Your task to perform on an android device: turn on javascript in the chrome app Image 0: 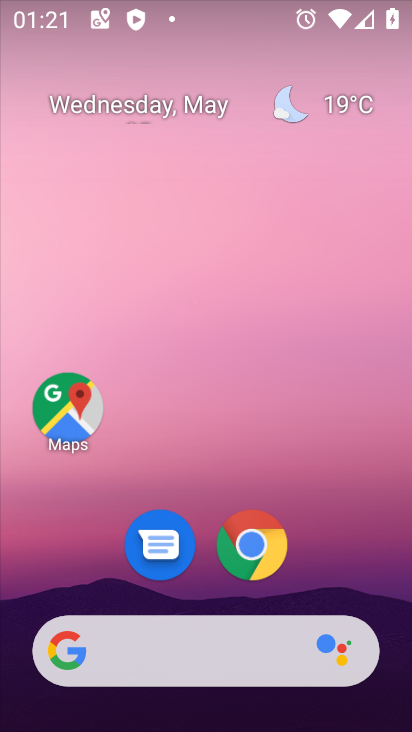
Step 0: drag from (346, 533) to (262, 92)
Your task to perform on an android device: turn on javascript in the chrome app Image 1: 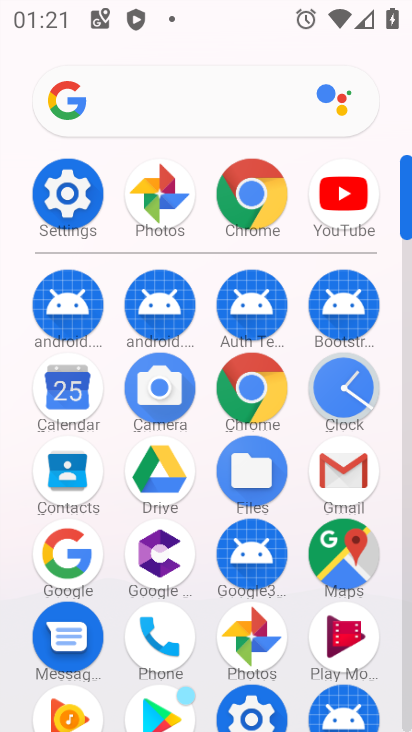
Step 1: click (233, 175)
Your task to perform on an android device: turn on javascript in the chrome app Image 2: 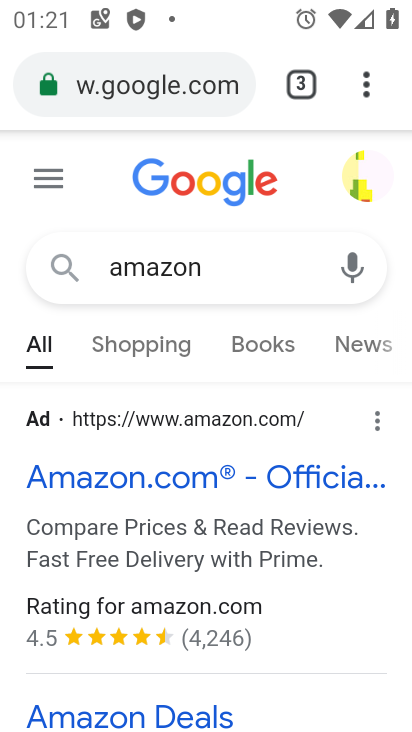
Step 2: click (364, 96)
Your task to perform on an android device: turn on javascript in the chrome app Image 3: 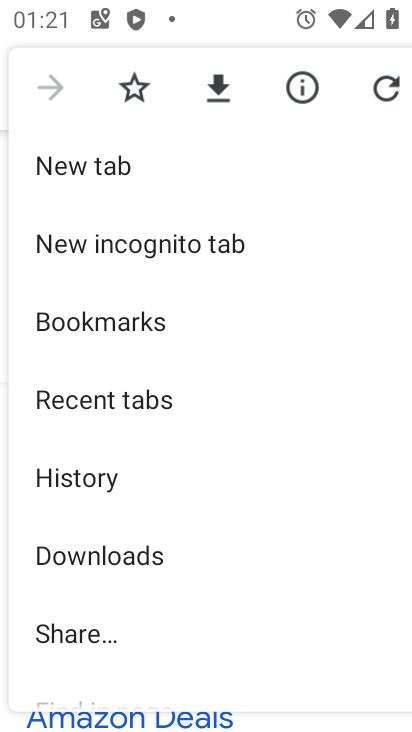
Step 3: drag from (216, 544) to (213, 129)
Your task to perform on an android device: turn on javascript in the chrome app Image 4: 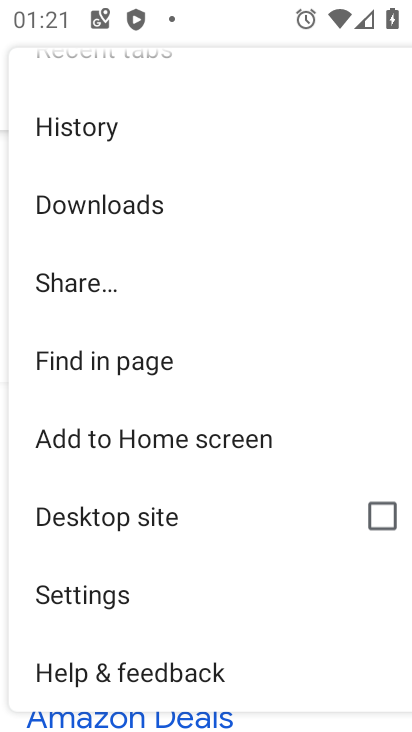
Step 4: click (107, 596)
Your task to perform on an android device: turn on javascript in the chrome app Image 5: 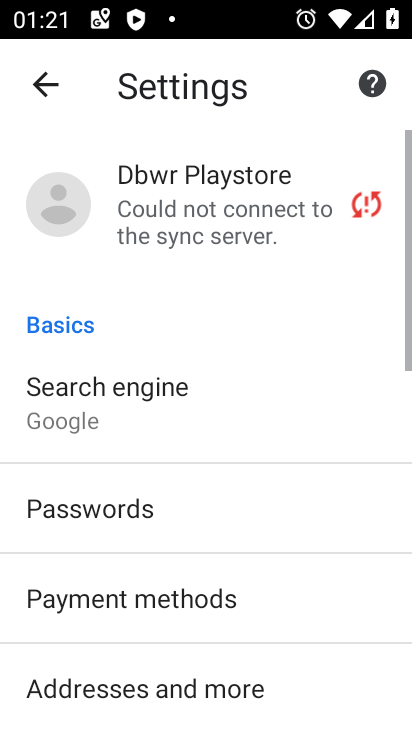
Step 5: drag from (231, 558) to (275, 82)
Your task to perform on an android device: turn on javascript in the chrome app Image 6: 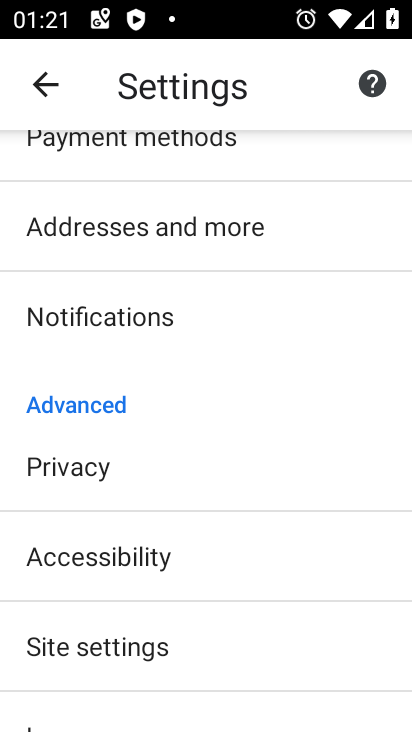
Step 6: drag from (277, 496) to (238, 161)
Your task to perform on an android device: turn on javascript in the chrome app Image 7: 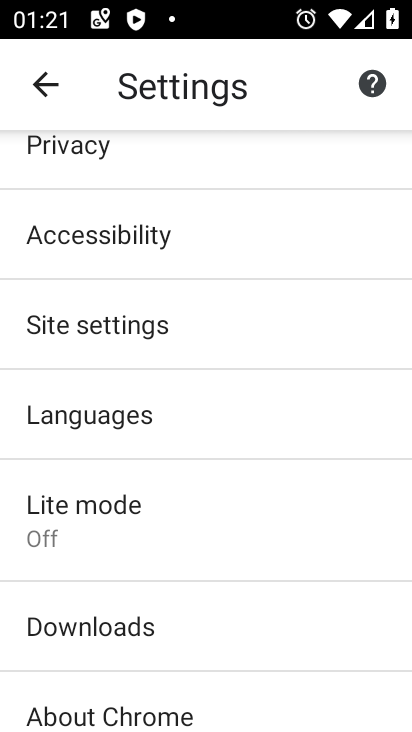
Step 7: drag from (136, 624) to (133, 313)
Your task to perform on an android device: turn on javascript in the chrome app Image 8: 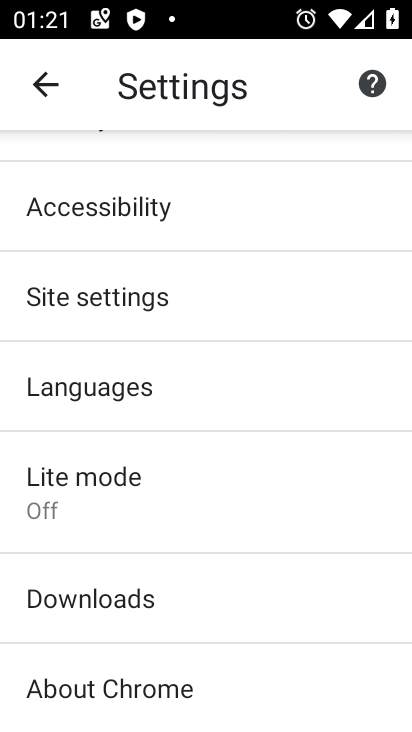
Step 8: click (133, 290)
Your task to perform on an android device: turn on javascript in the chrome app Image 9: 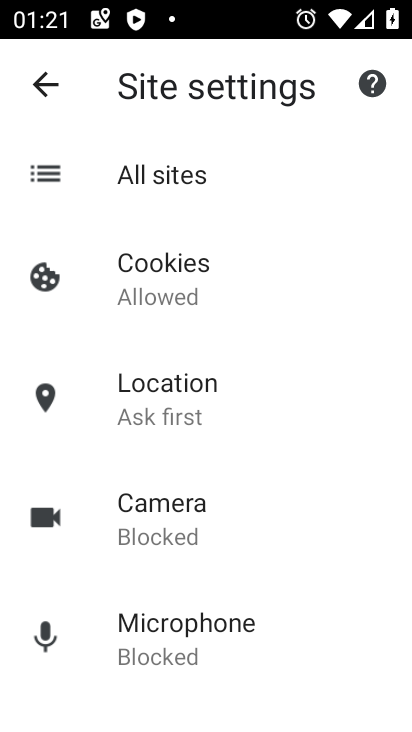
Step 9: drag from (240, 586) to (291, 168)
Your task to perform on an android device: turn on javascript in the chrome app Image 10: 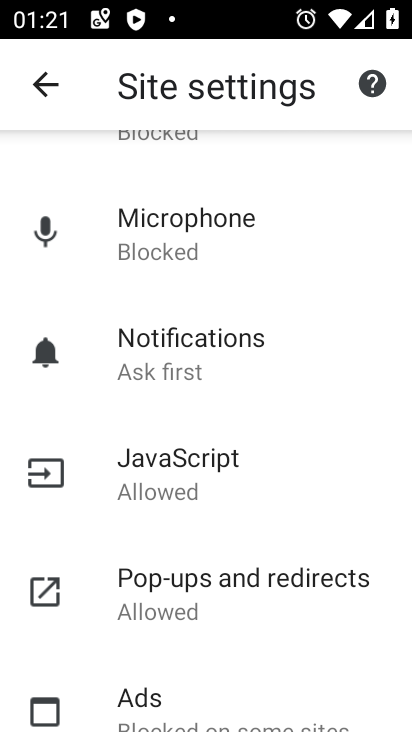
Step 10: click (192, 495)
Your task to perform on an android device: turn on javascript in the chrome app Image 11: 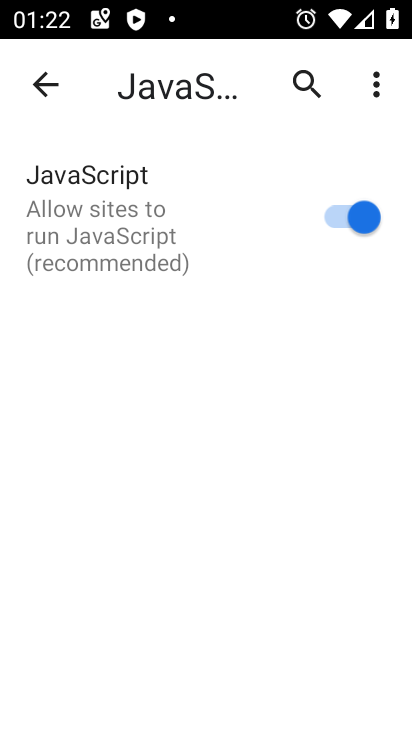
Step 11: task complete